Your task to perform on an android device: Open location settings Image 0: 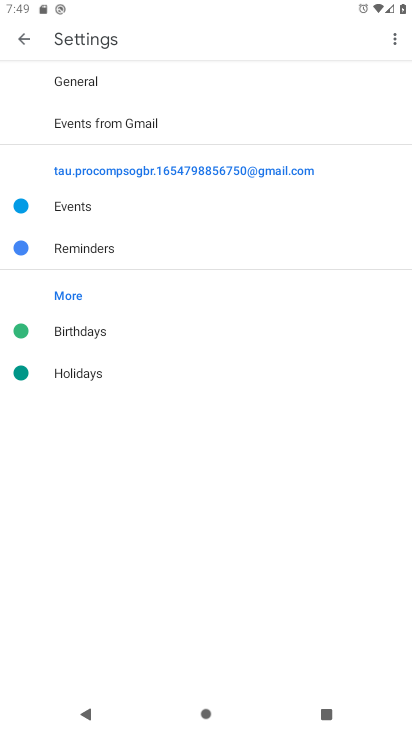
Step 0: press home button
Your task to perform on an android device: Open location settings Image 1: 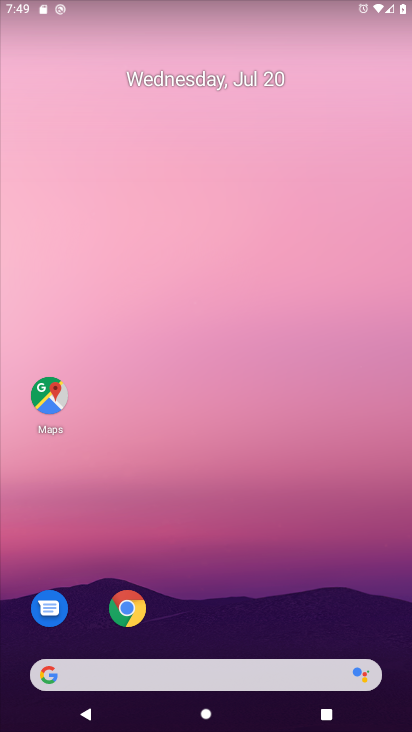
Step 1: drag from (219, 556) to (225, 301)
Your task to perform on an android device: Open location settings Image 2: 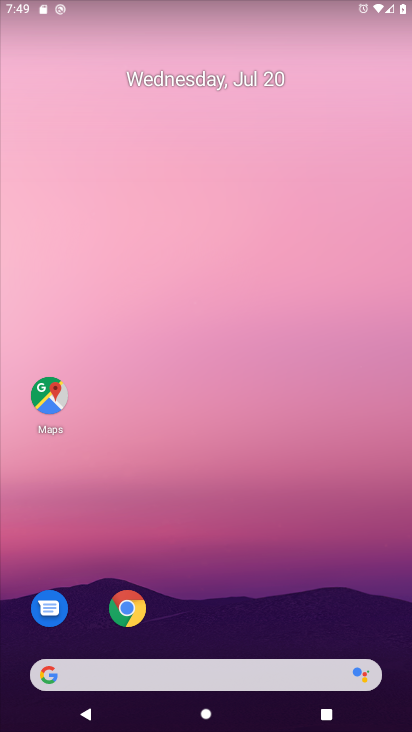
Step 2: drag from (226, 644) to (236, 294)
Your task to perform on an android device: Open location settings Image 3: 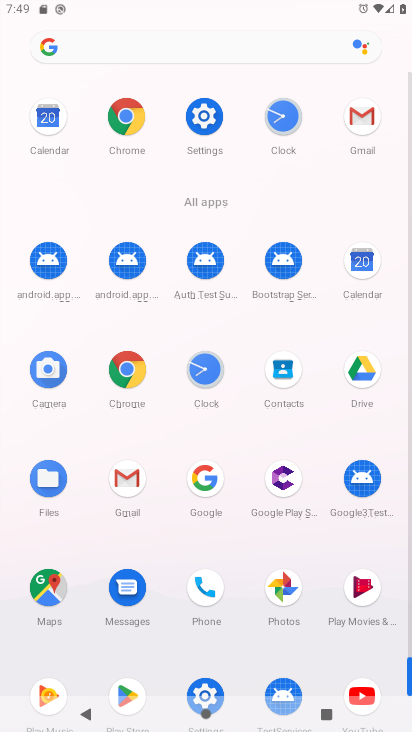
Step 3: click (214, 112)
Your task to perform on an android device: Open location settings Image 4: 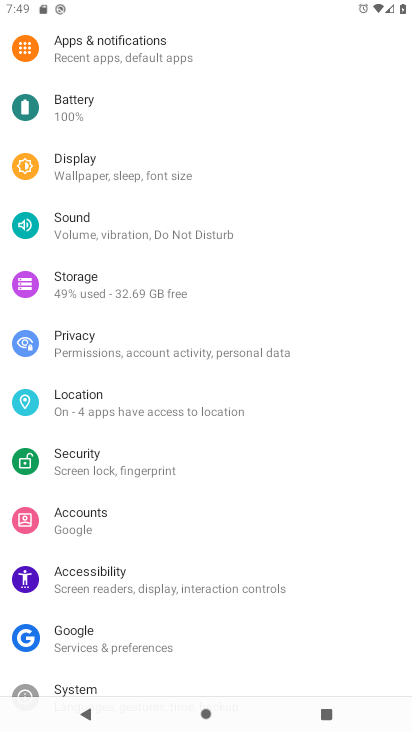
Step 4: click (126, 411)
Your task to perform on an android device: Open location settings Image 5: 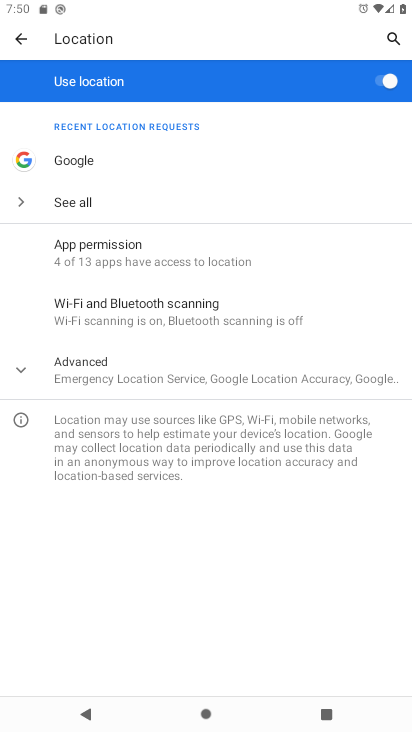
Step 5: task complete